Your task to perform on an android device: Open the calendar and show me this week's events? Image 0: 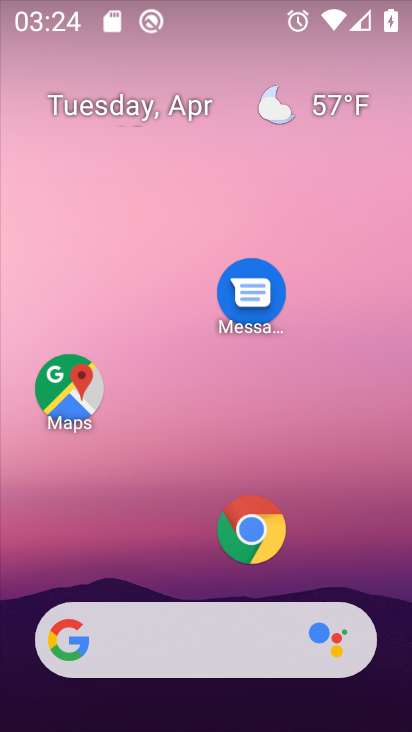
Step 0: drag from (170, 540) to (164, 134)
Your task to perform on an android device: Open the calendar and show me this week's events? Image 1: 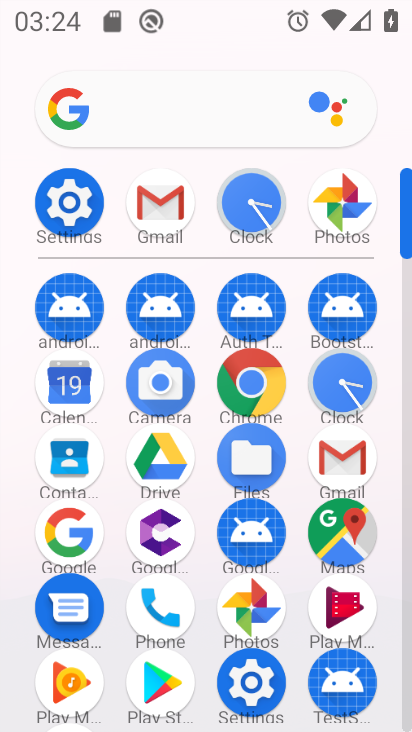
Step 1: click (67, 384)
Your task to perform on an android device: Open the calendar and show me this week's events? Image 2: 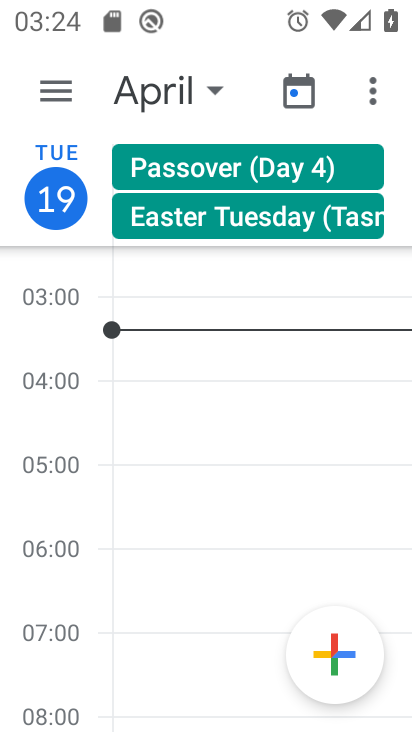
Step 2: click (196, 91)
Your task to perform on an android device: Open the calendar and show me this week's events? Image 3: 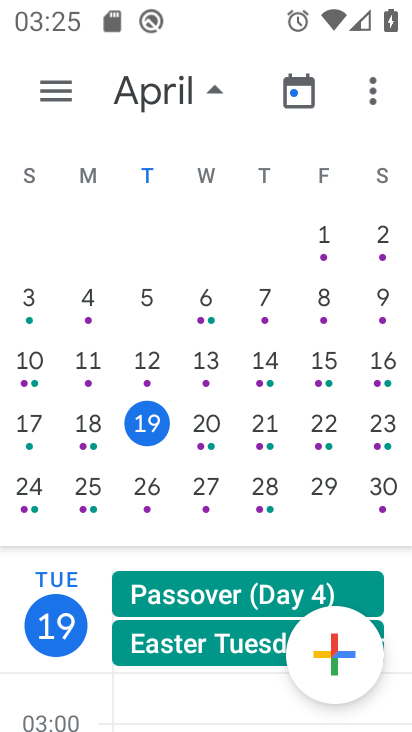
Step 3: click (320, 425)
Your task to perform on an android device: Open the calendar and show me this week's events? Image 4: 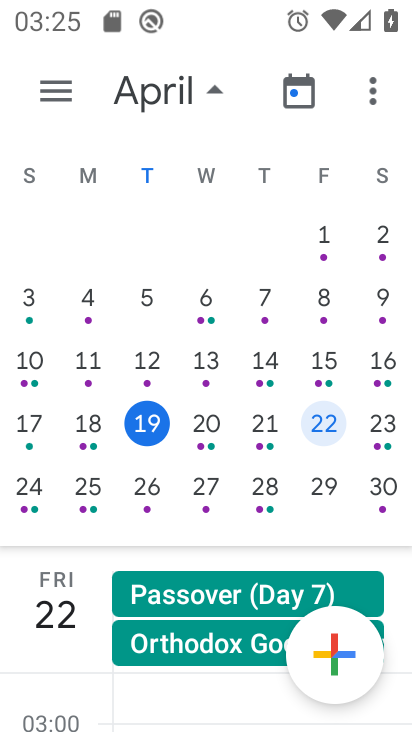
Step 4: task complete